Your task to perform on an android device: manage bookmarks in the chrome app Image 0: 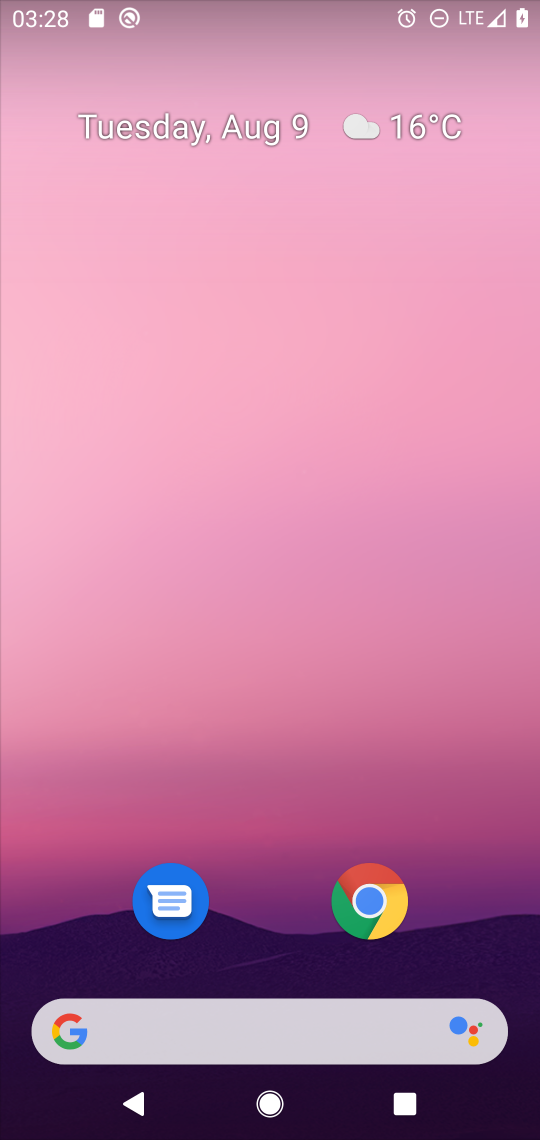
Step 0: click (371, 900)
Your task to perform on an android device: manage bookmarks in the chrome app Image 1: 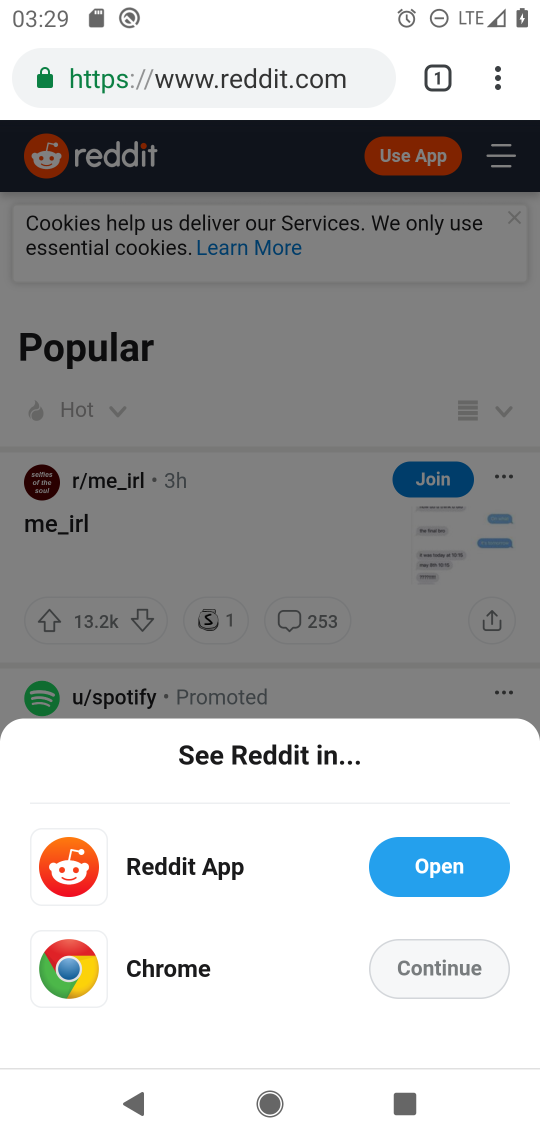
Step 1: click (498, 92)
Your task to perform on an android device: manage bookmarks in the chrome app Image 2: 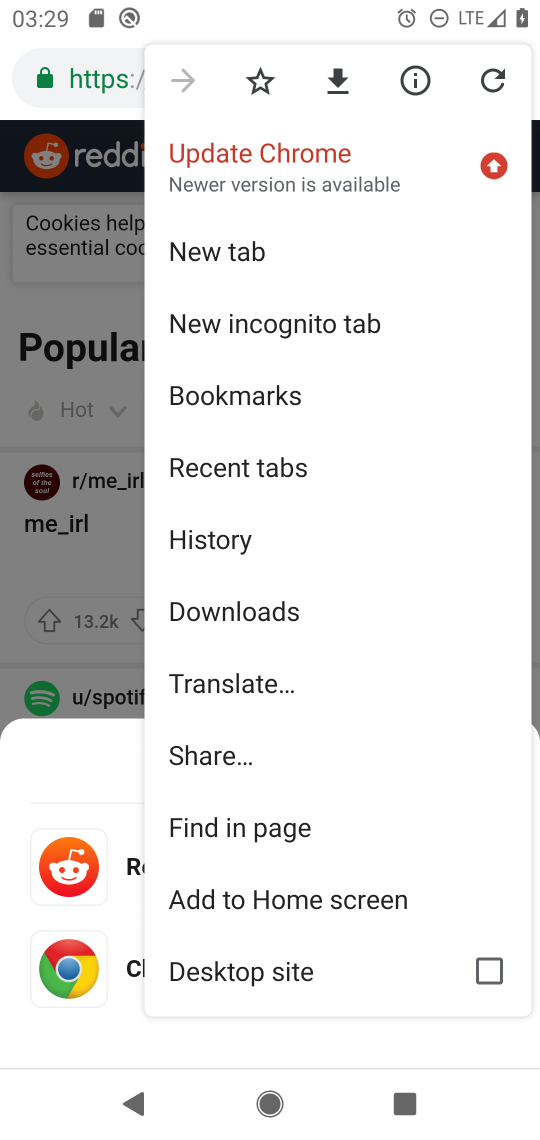
Step 2: click (243, 412)
Your task to perform on an android device: manage bookmarks in the chrome app Image 3: 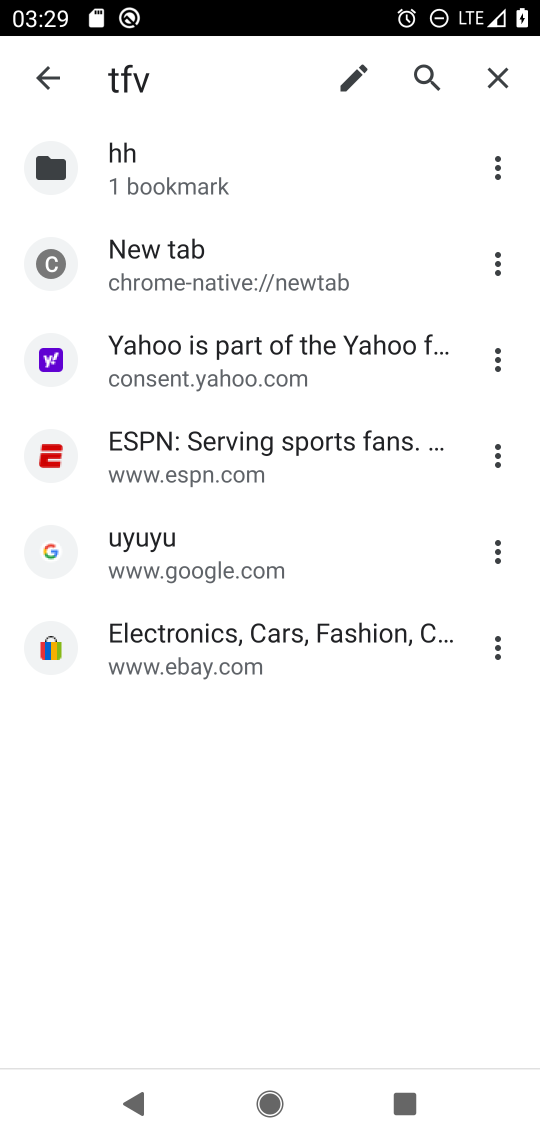
Step 3: click (144, 541)
Your task to perform on an android device: manage bookmarks in the chrome app Image 4: 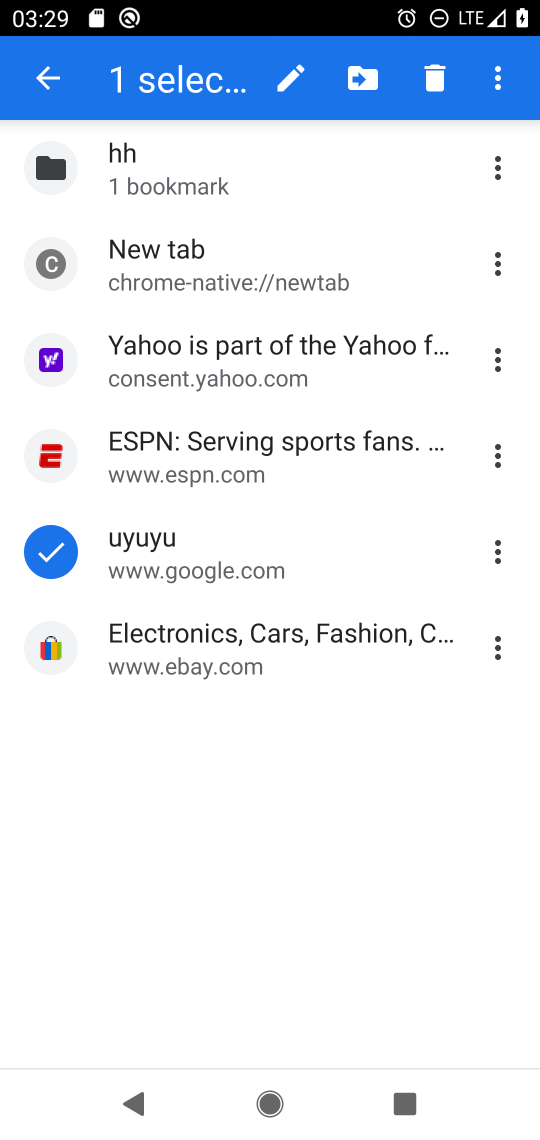
Step 4: click (356, 80)
Your task to perform on an android device: manage bookmarks in the chrome app Image 5: 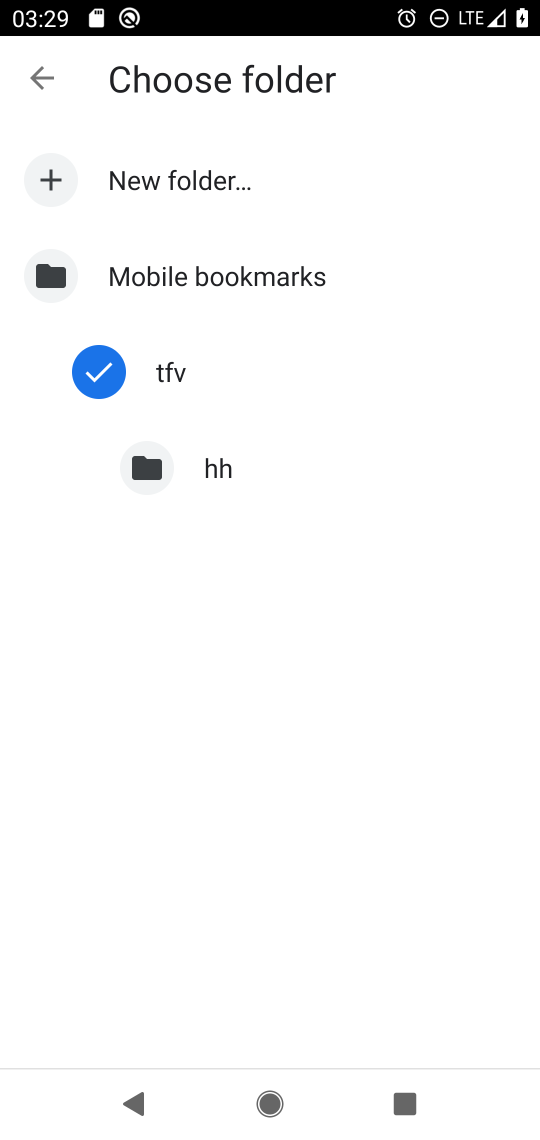
Step 5: click (203, 471)
Your task to perform on an android device: manage bookmarks in the chrome app Image 6: 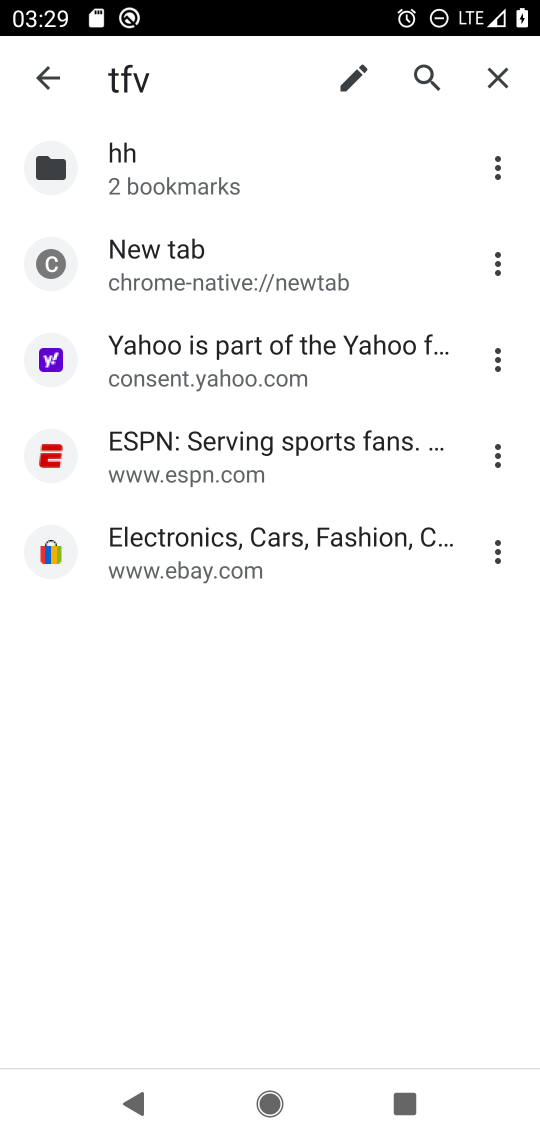
Step 6: task complete